Your task to perform on an android device: check google app version Image 0: 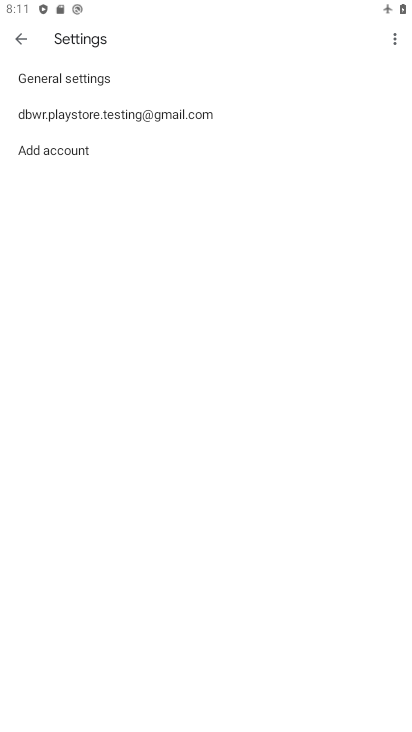
Step 0: press home button
Your task to perform on an android device: check google app version Image 1: 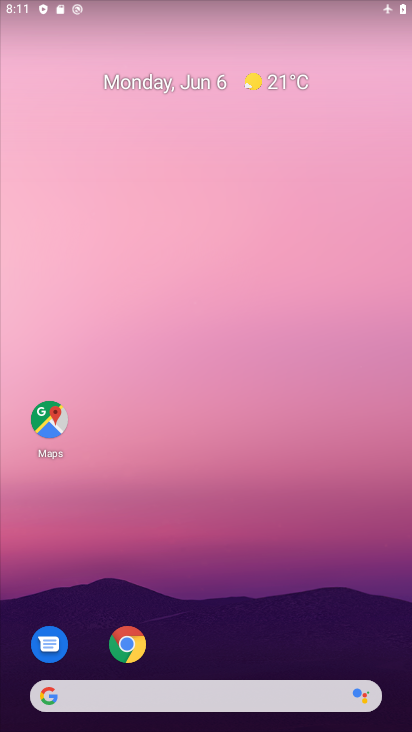
Step 1: drag from (206, 685) to (229, 31)
Your task to perform on an android device: check google app version Image 2: 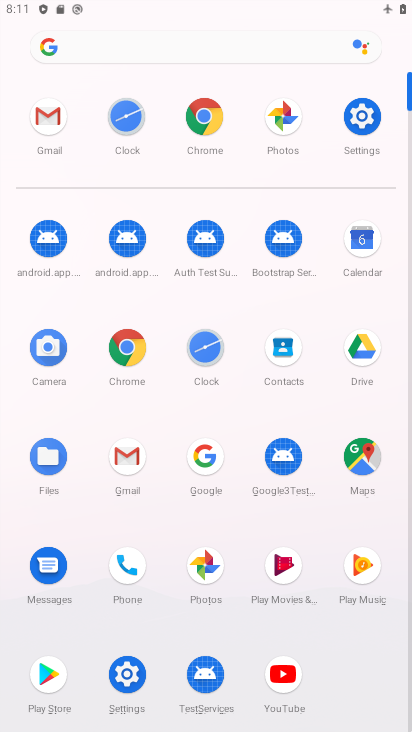
Step 2: click (214, 466)
Your task to perform on an android device: check google app version Image 3: 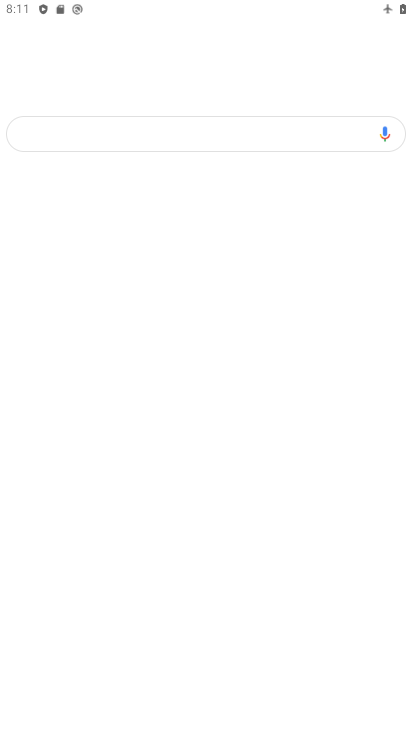
Step 3: click (213, 464)
Your task to perform on an android device: check google app version Image 4: 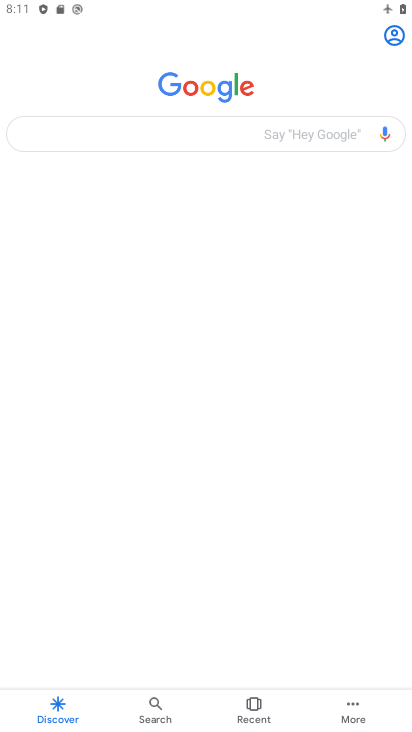
Step 4: press back button
Your task to perform on an android device: check google app version Image 5: 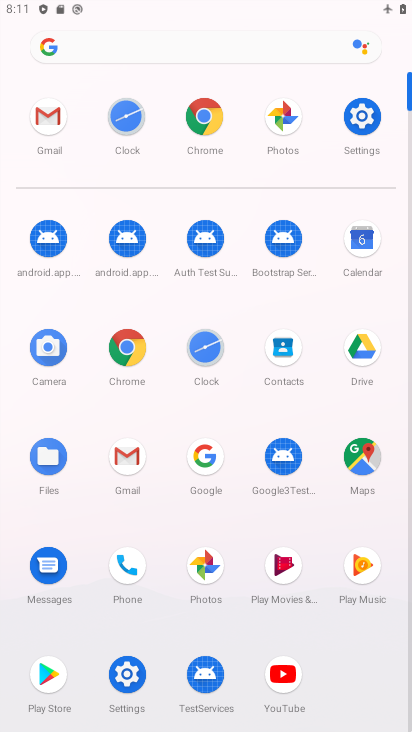
Step 5: drag from (201, 449) to (291, 250)
Your task to perform on an android device: check google app version Image 6: 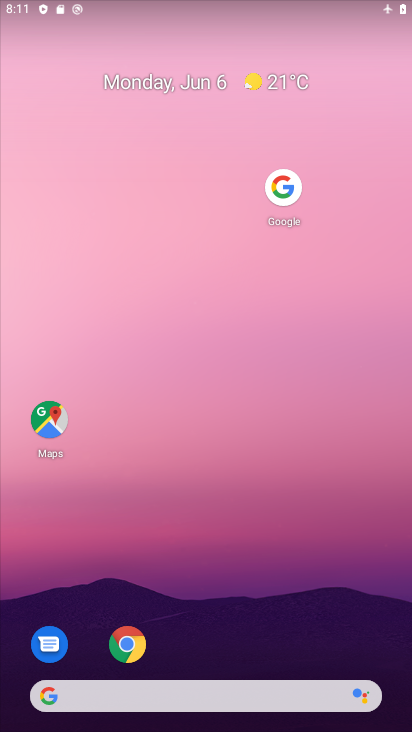
Step 6: click (283, 199)
Your task to perform on an android device: check google app version Image 7: 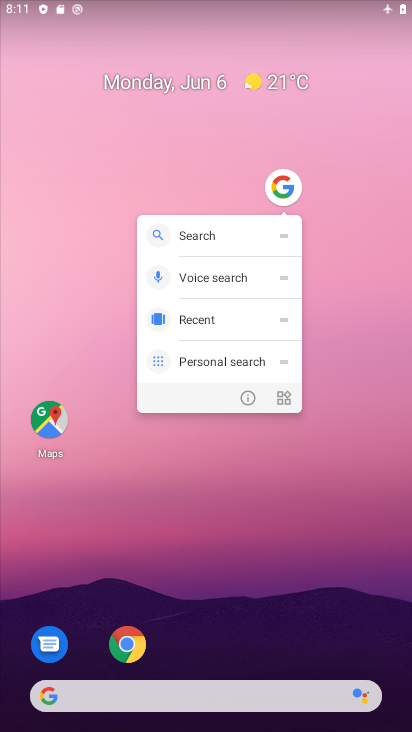
Step 7: click (247, 398)
Your task to perform on an android device: check google app version Image 8: 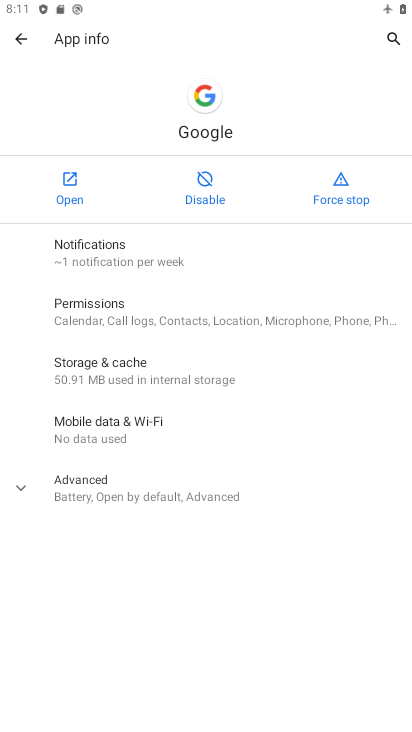
Step 8: click (71, 509)
Your task to perform on an android device: check google app version Image 9: 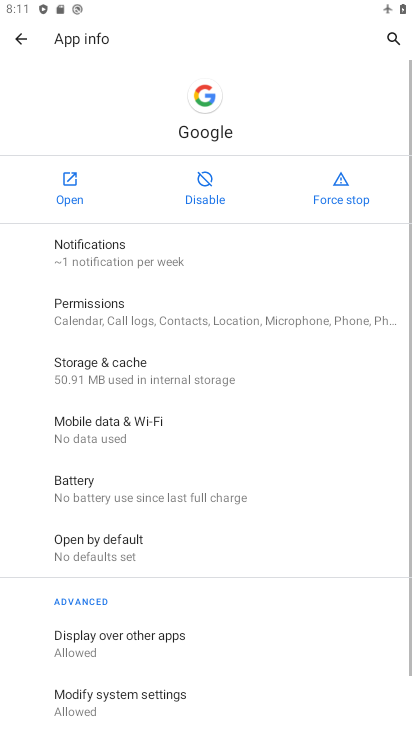
Step 9: task complete